Your task to perform on an android device: Find coffee shops on Maps Image 0: 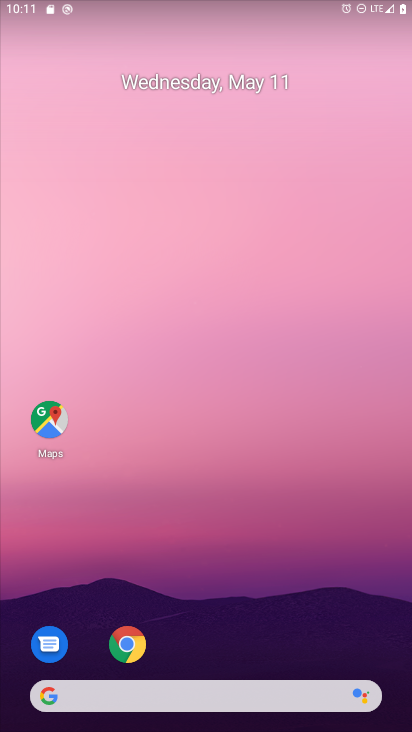
Step 0: click (40, 424)
Your task to perform on an android device: Find coffee shops on Maps Image 1: 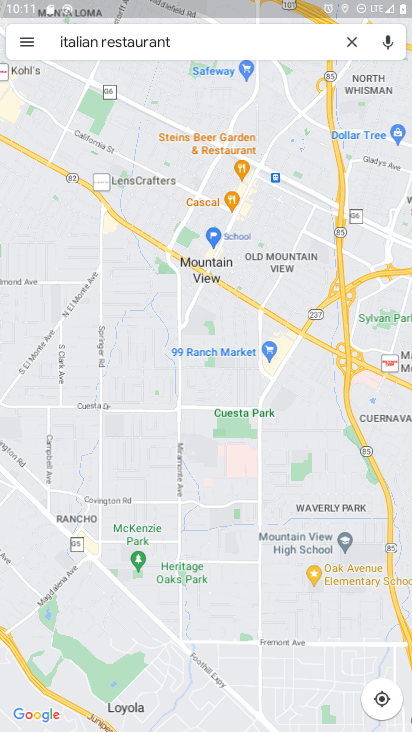
Step 1: click (346, 41)
Your task to perform on an android device: Find coffee shops on Maps Image 2: 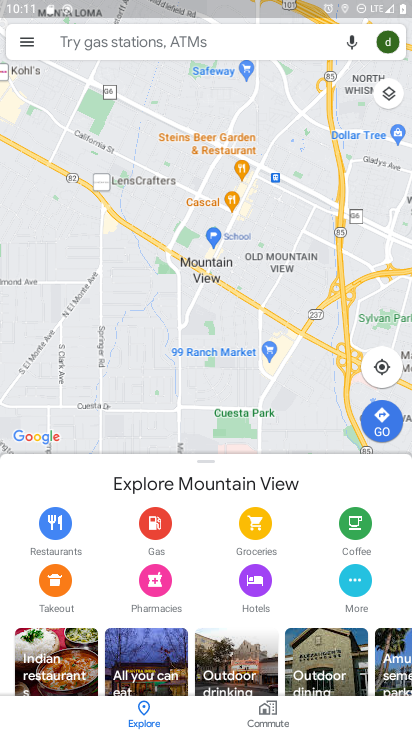
Step 2: click (179, 35)
Your task to perform on an android device: Find coffee shops on Maps Image 3: 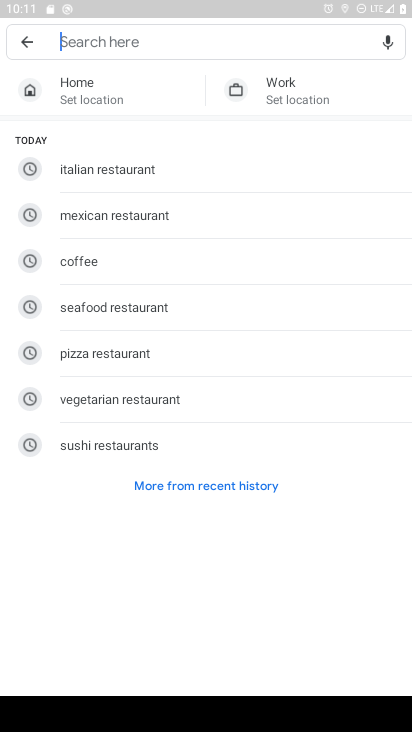
Step 3: click (85, 257)
Your task to perform on an android device: Find coffee shops on Maps Image 4: 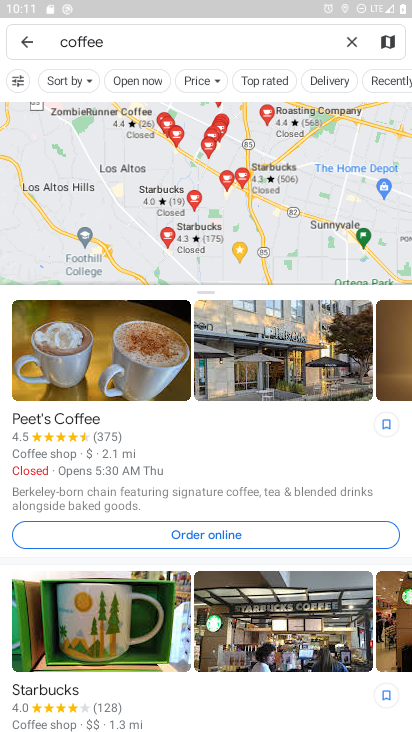
Step 4: task complete